Your task to perform on an android device: change text size in settings app Image 0: 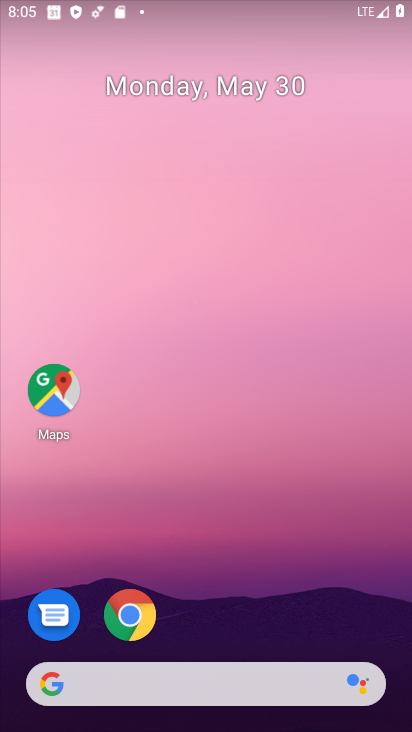
Step 0: drag from (95, 728) to (71, 302)
Your task to perform on an android device: change text size in settings app Image 1: 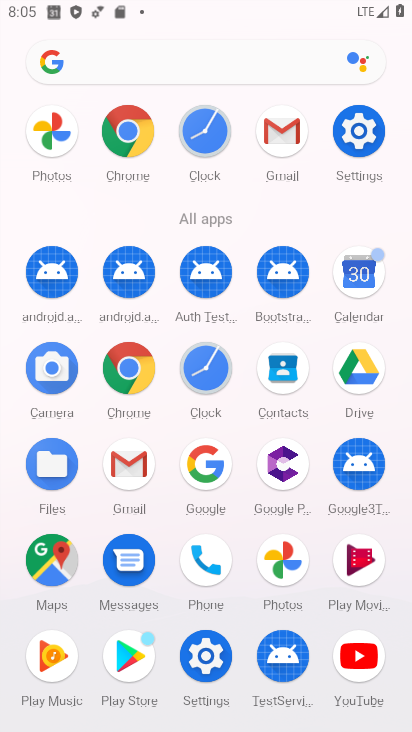
Step 1: click (344, 112)
Your task to perform on an android device: change text size in settings app Image 2: 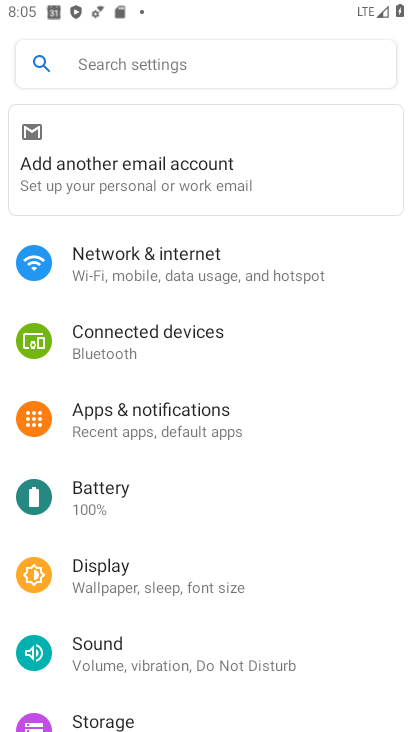
Step 2: click (222, 594)
Your task to perform on an android device: change text size in settings app Image 3: 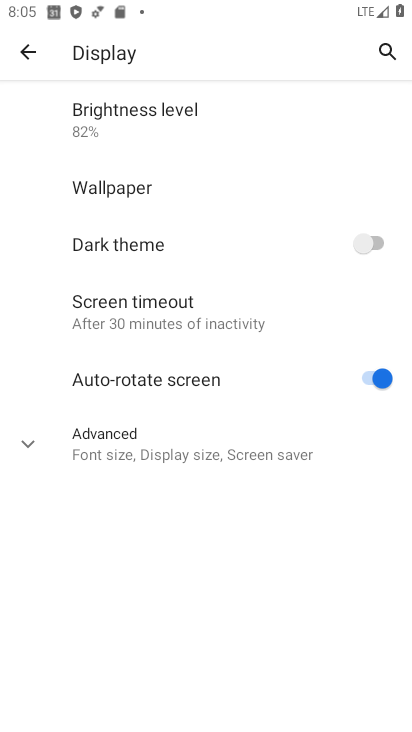
Step 3: click (133, 454)
Your task to perform on an android device: change text size in settings app Image 4: 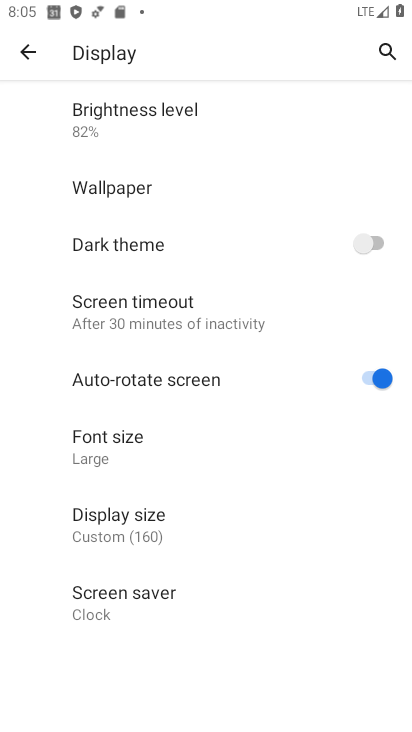
Step 4: click (101, 473)
Your task to perform on an android device: change text size in settings app Image 5: 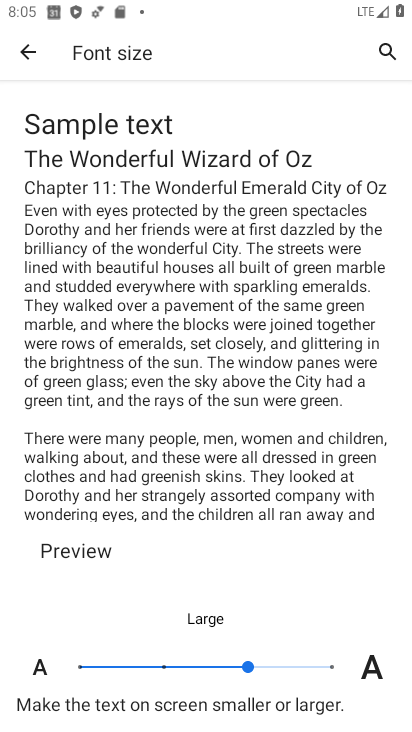
Step 5: click (163, 659)
Your task to perform on an android device: change text size in settings app Image 6: 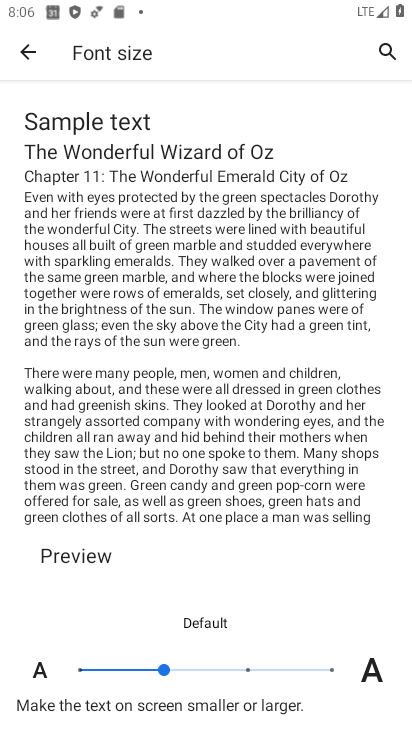
Step 6: task complete